Your task to perform on an android device: Go to Wikipedia Image 0: 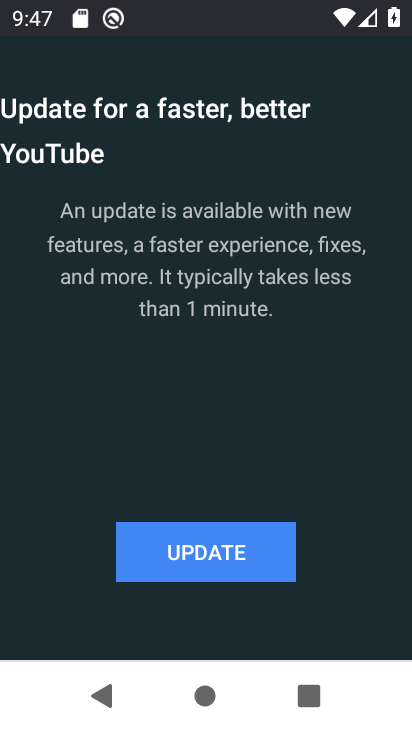
Step 0: press back button
Your task to perform on an android device: Go to Wikipedia Image 1: 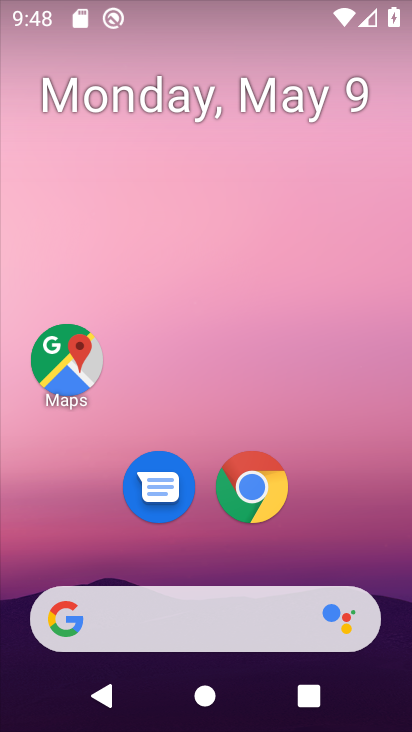
Step 1: drag from (334, 527) to (251, 17)
Your task to perform on an android device: Go to Wikipedia Image 2: 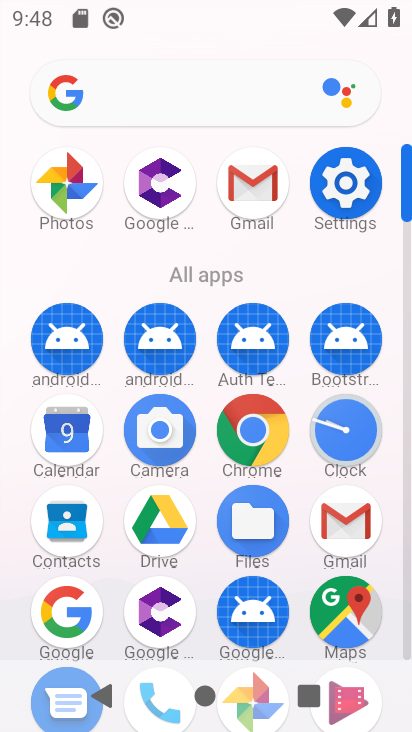
Step 2: click (253, 424)
Your task to perform on an android device: Go to Wikipedia Image 3: 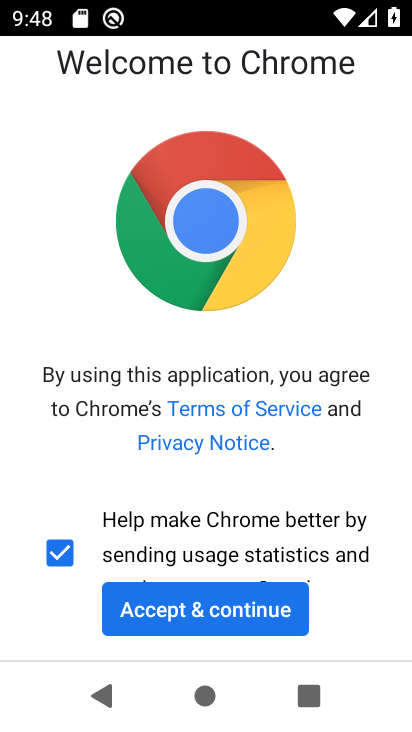
Step 3: click (213, 617)
Your task to perform on an android device: Go to Wikipedia Image 4: 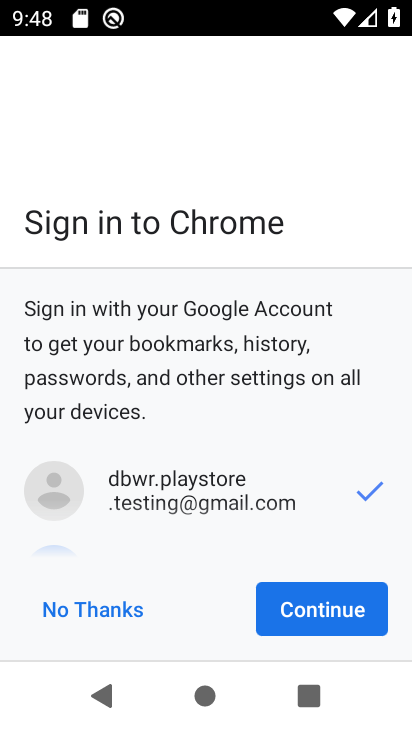
Step 4: click (316, 616)
Your task to perform on an android device: Go to Wikipedia Image 5: 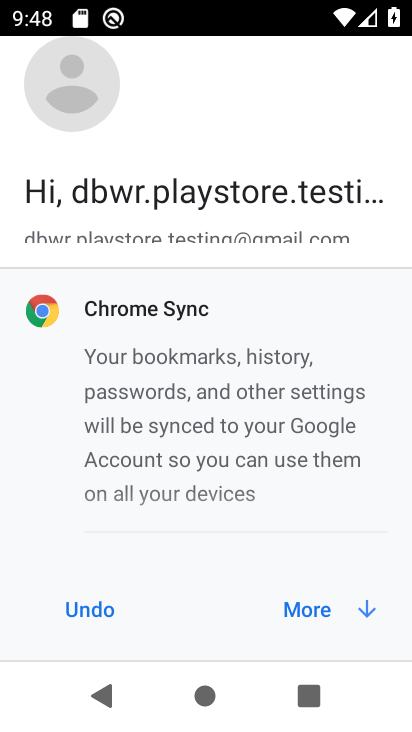
Step 5: click (304, 602)
Your task to perform on an android device: Go to Wikipedia Image 6: 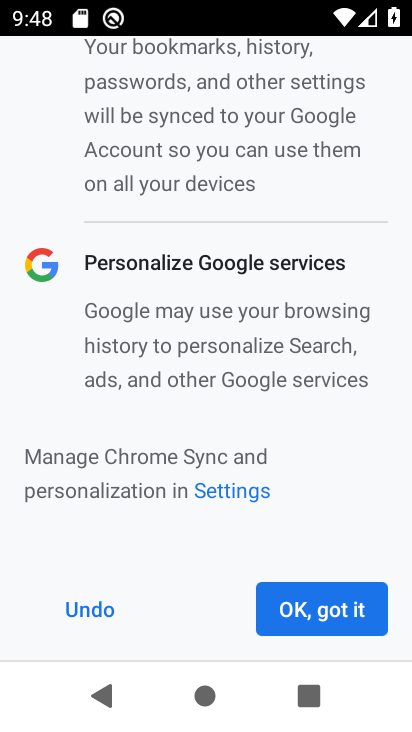
Step 6: click (304, 602)
Your task to perform on an android device: Go to Wikipedia Image 7: 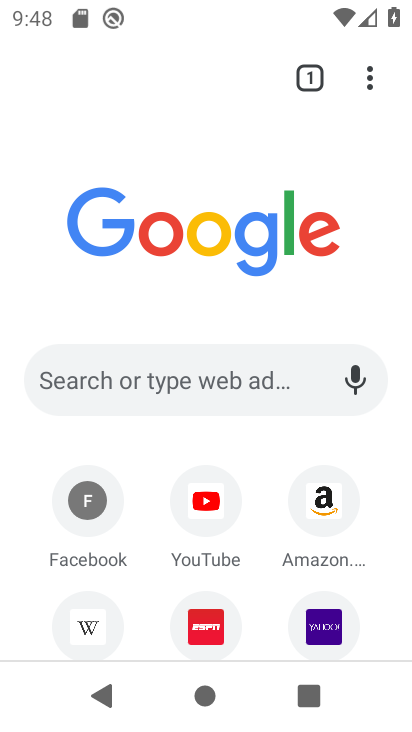
Step 7: click (92, 613)
Your task to perform on an android device: Go to Wikipedia Image 8: 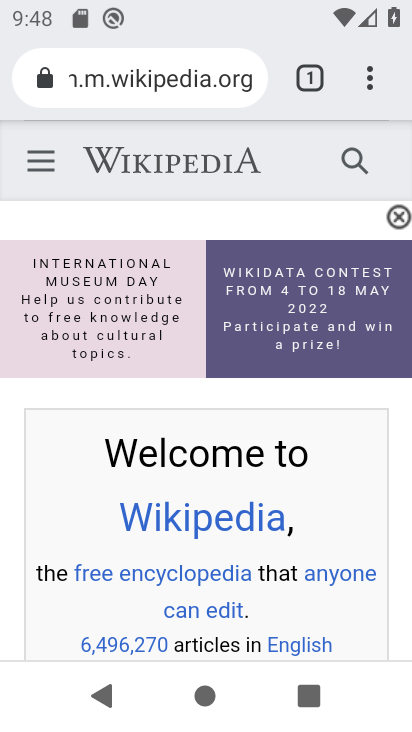
Step 8: task complete